Your task to perform on an android device: refresh tabs in the chrome app Image 0: 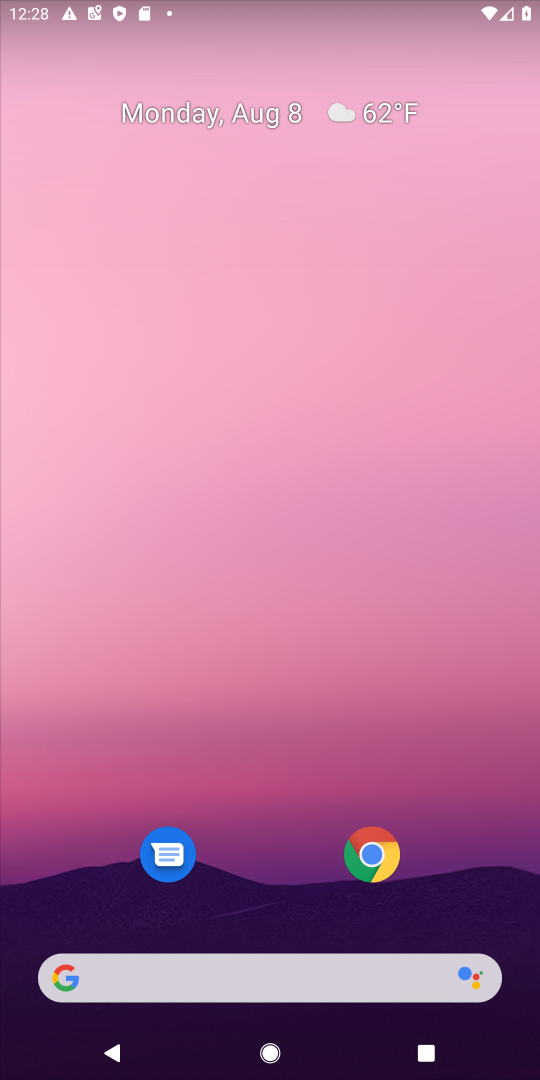
Step 0: press home button
Your task to perform on an android device: refresh tabs in the chrome app Image 1: 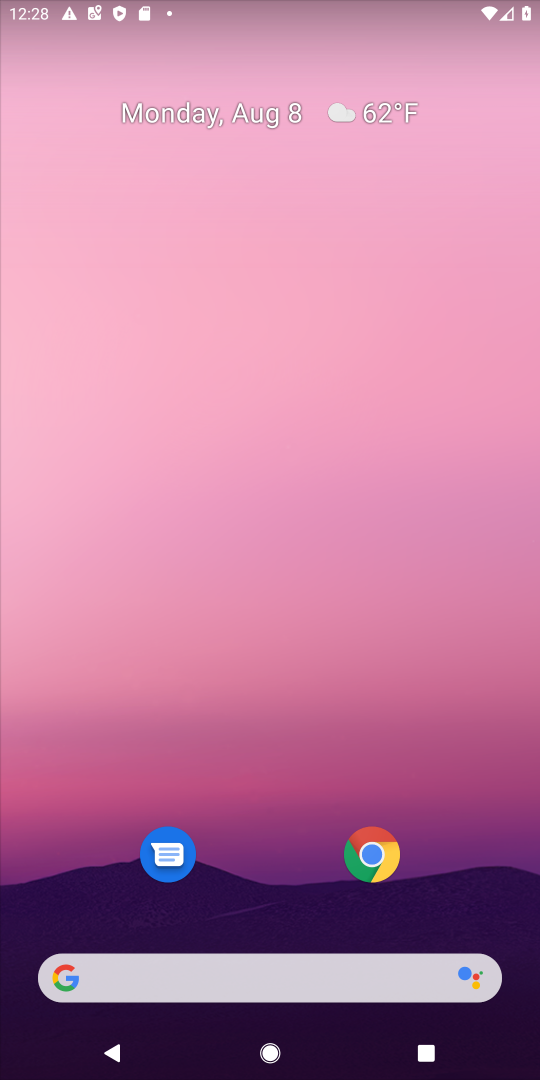
Step 1: click (373, 857)
Your task to perform on an android device: refresh tabs in the chrome app Image 2: 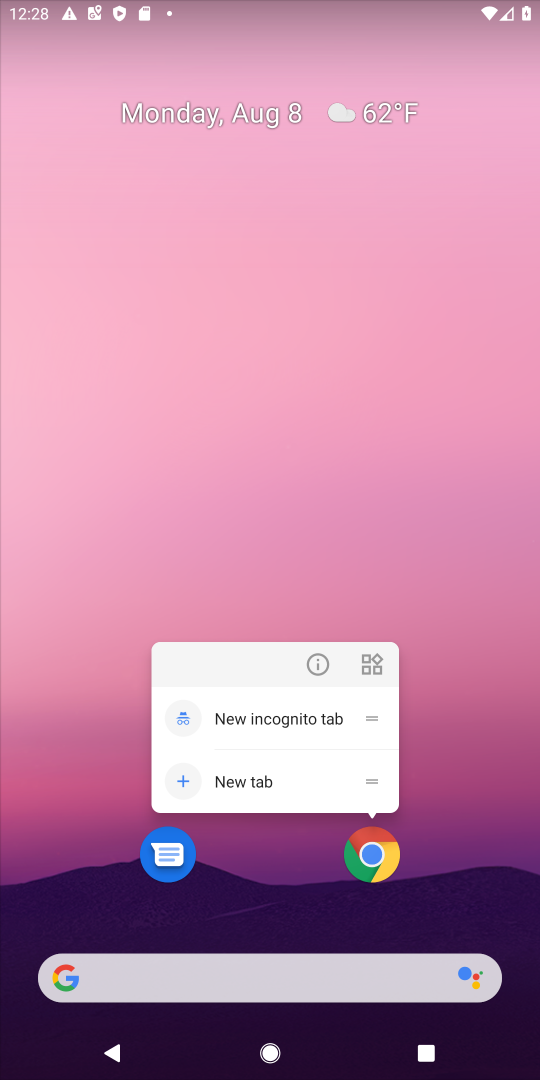
Step 2: click (373, 857)
Your task to perform on an android device: refresh tabs in the chrome app Image 3: 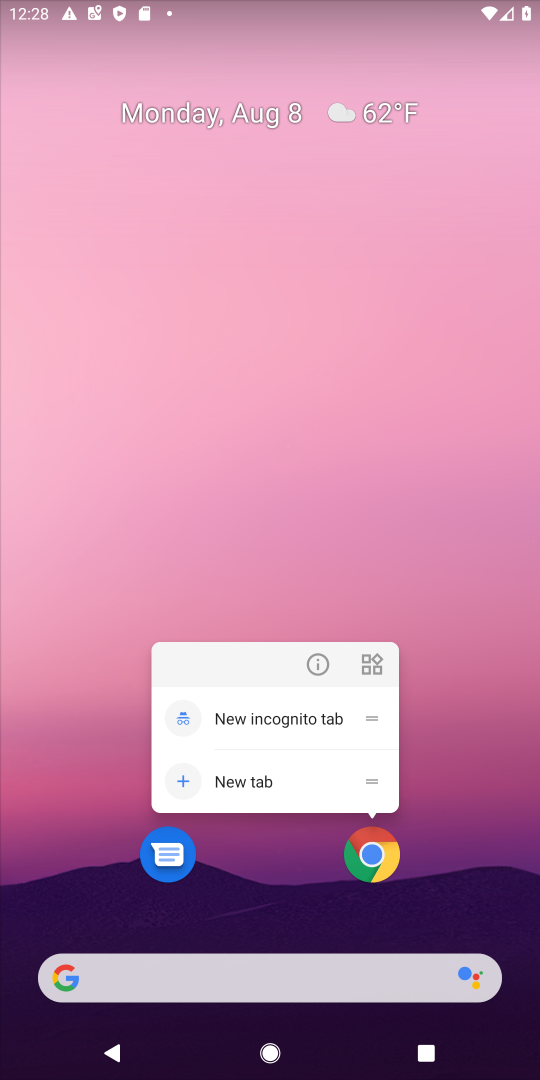
Step 3: click (360, 908)
Your task to perform on an android device: refresh tabs in the chrome app Image 4: 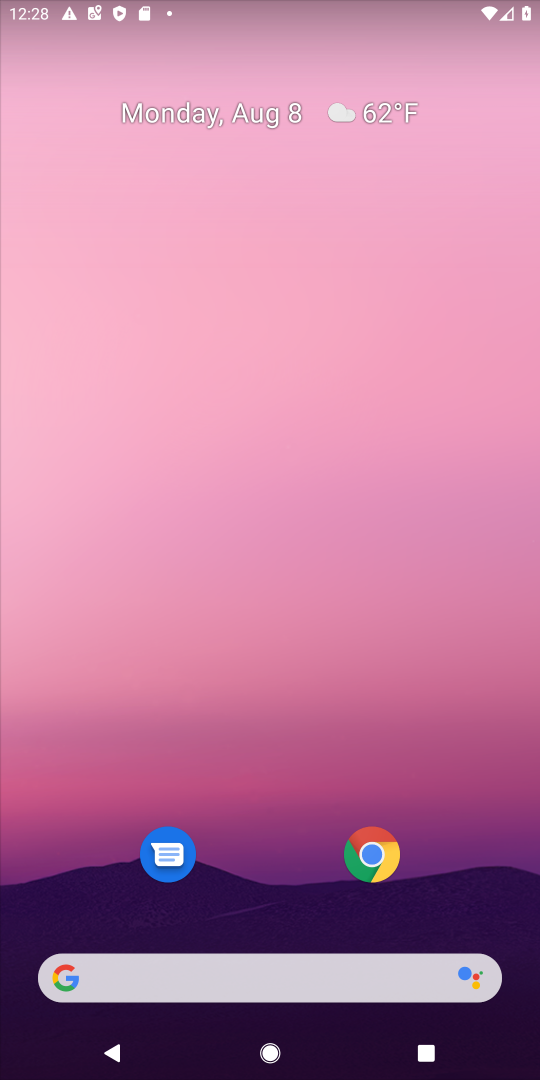
Step 4: drag from (287, 871) to (368, 330)
Your task to perform on an android device: refresh tabs in the chrome app Image 5: 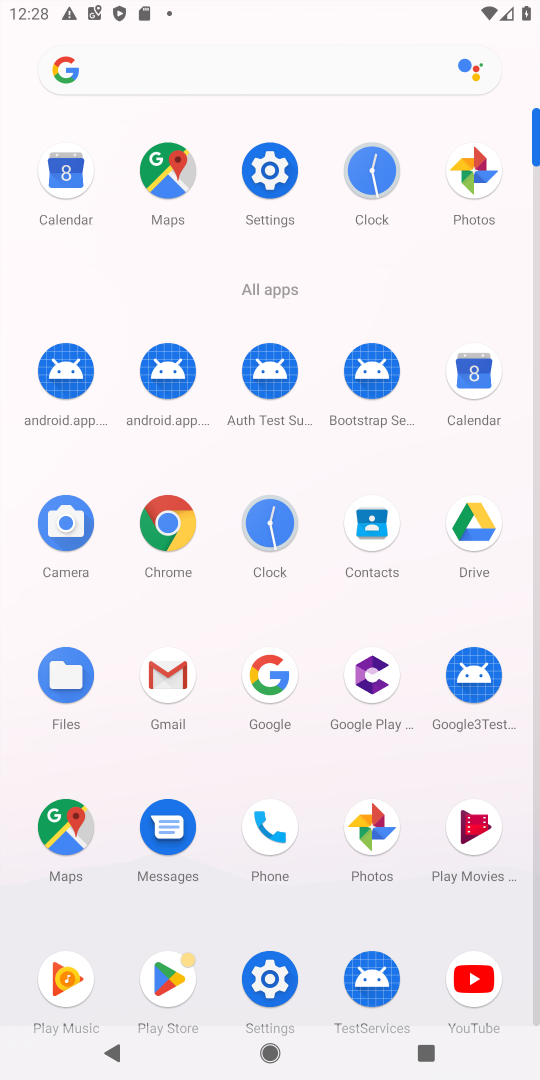
Step 5: click (158, 511)
Your task to perform on an android device: refresh tabs in the chrome app Image 6: 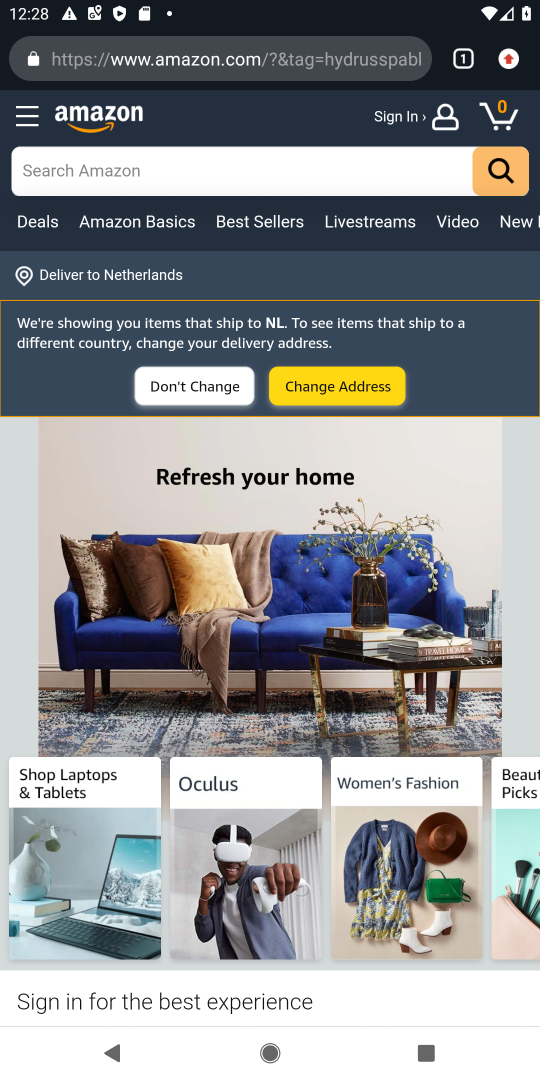
Step 6: click (503, 58)
Your task to perform on an android device: refresh tabs in the chrome app Image 7: 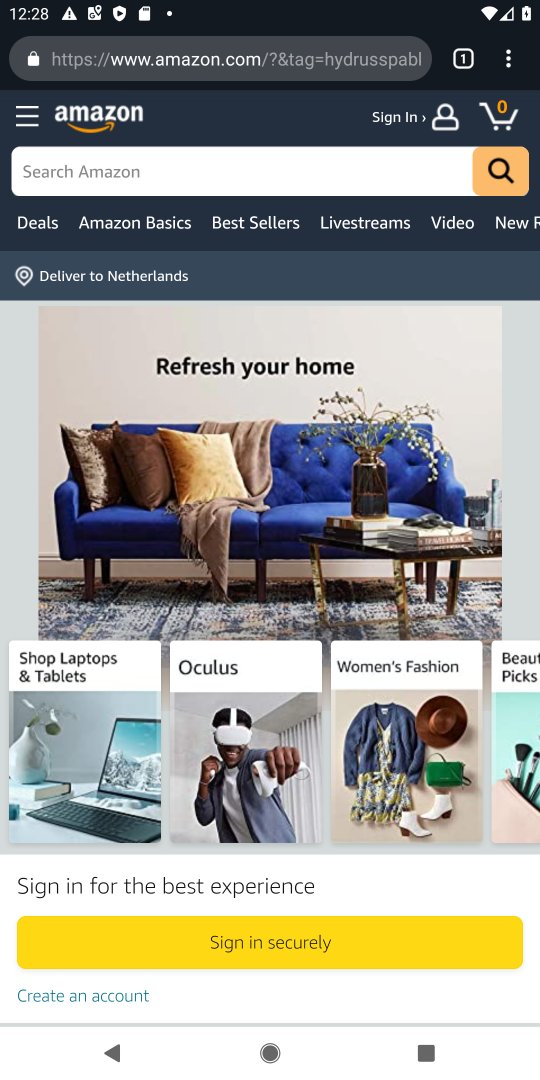
Step 7: task complete